Your task to perform on an android device: toggle sleep mode Image 0: 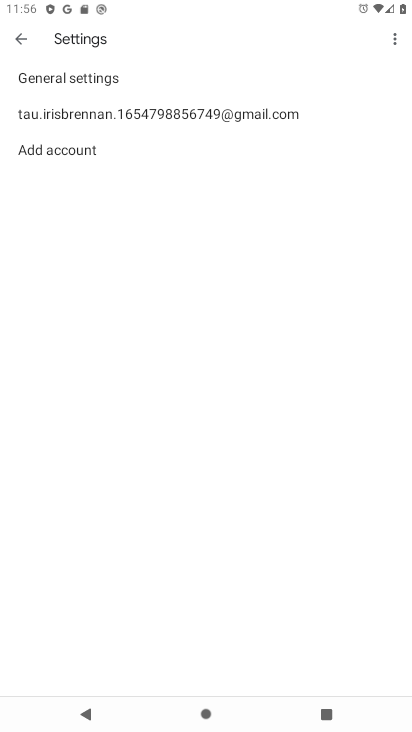
Step 0: press home button
Your task to perform on an android device: toggle sleep mode Image 1: 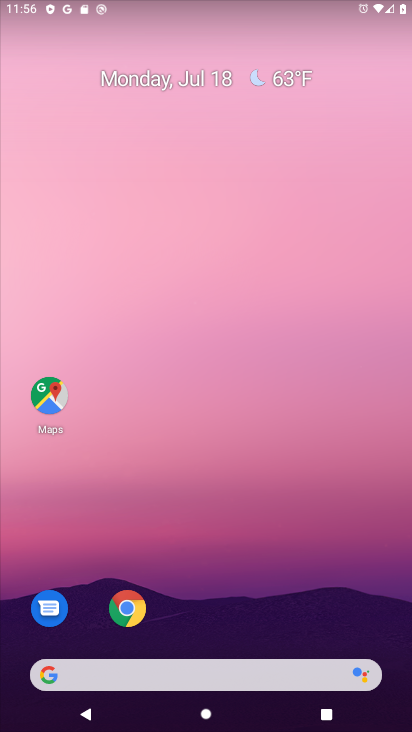
Step 1: drag from (290, 560) to (313, 109)
Your task to perform on an android device: toggle sleep mode Image 2: 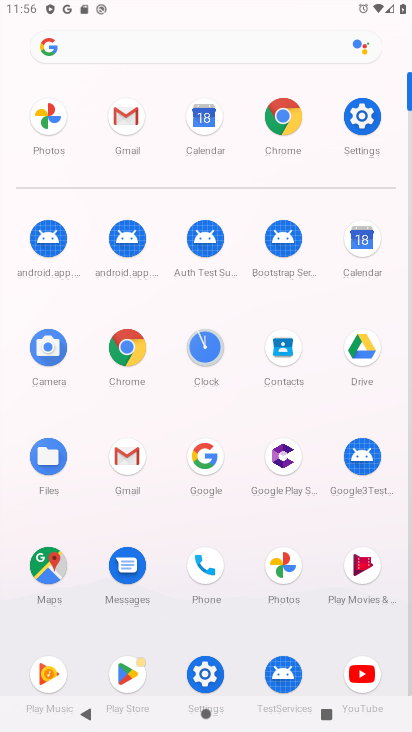
Step 2: click (364, 111)
Your task to perform on an android device: toggle sleep mode Image 3: 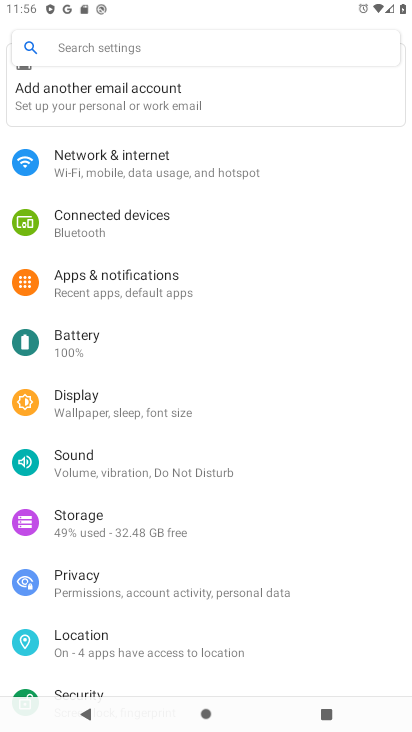
Step 3: click (101, 407)
Your task to perform on an android device: toggle sleep mode Image 4: 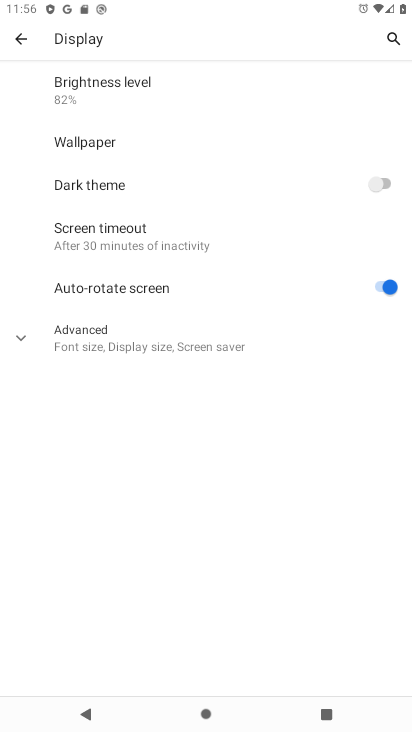
Step 4: click (232, 334)
Your task to perform on an android device: toggle sleep mode Image 5: 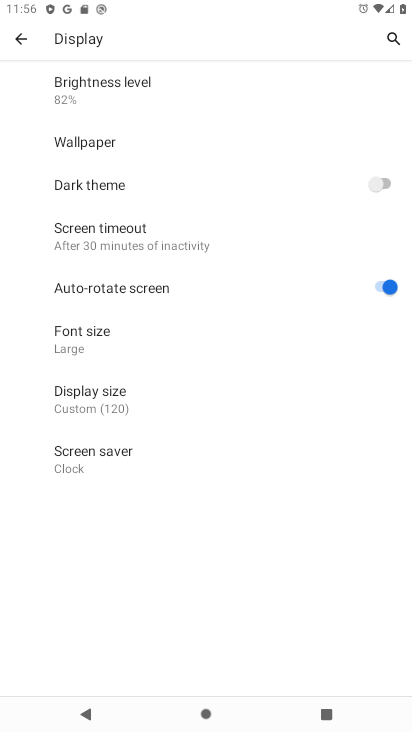
Step 5: task complete